Your task to perform on an android device: Open calendar and show me the second week of next month Image 0: 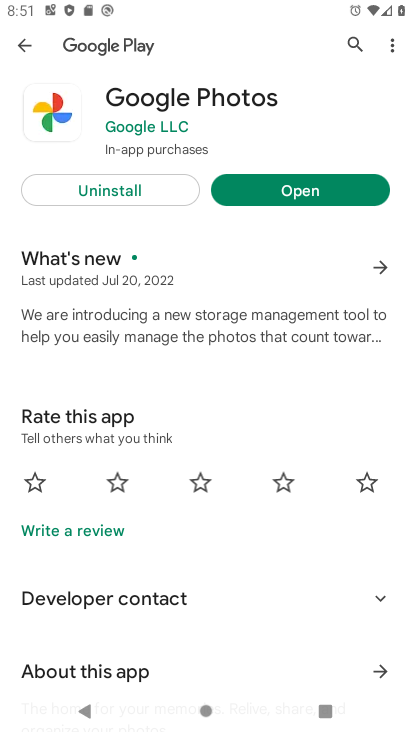
Step 0: press home button
Your task to perform on an android device: Open calendar and show me the second week of next month Image 1: 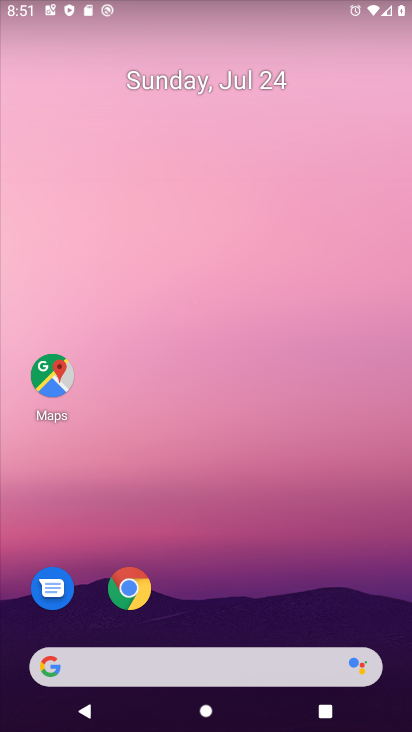
Step 1: drag from (319, 436) to (336, 2)
Your task to perform on an android device: Open calendar and show me the second week of next month Image 2: 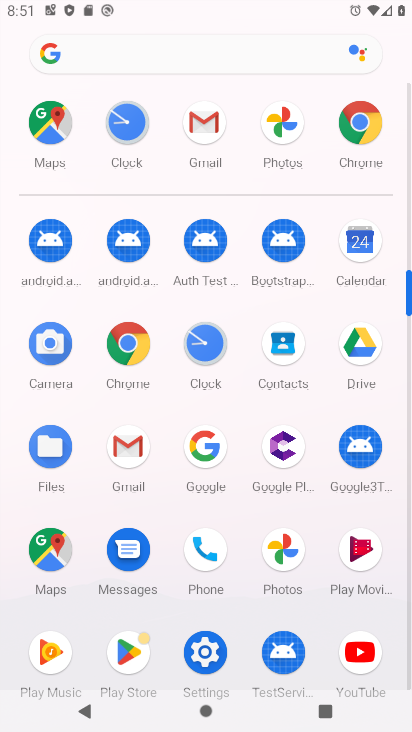
Step 2: click (374, 239)
Your task to perform on an android device: Open calendar and show me the second week of next month Image 3: 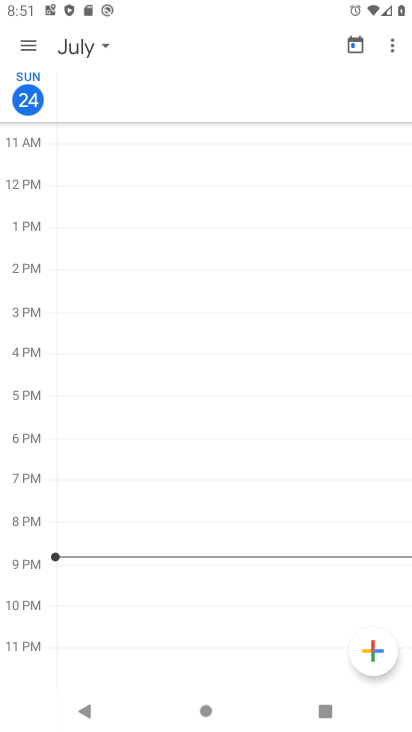
Step 3: click (78, 55)
Your task to perform on an android device: Open calendar and show me the second week of next month Image 4: 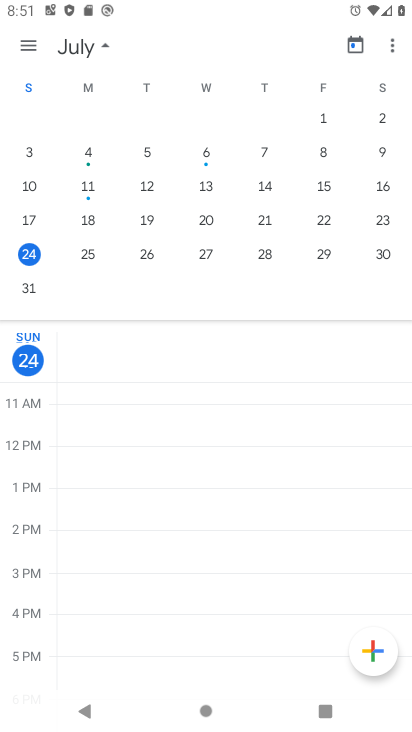
Step 4: drag from (299, 177) to (0, 206)
Your task to perform on an android device: Open calendar and show me the second week of next month Image 5: 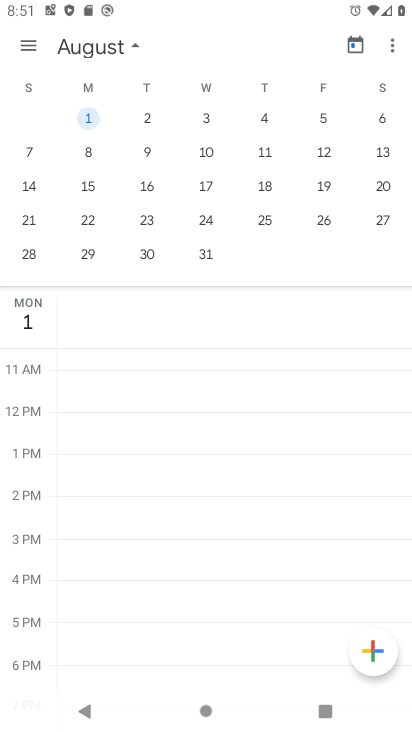
Step 5: click (20, 195)
Your task to perform on an android device: Open calendar and show me the second week of next month Image 6: 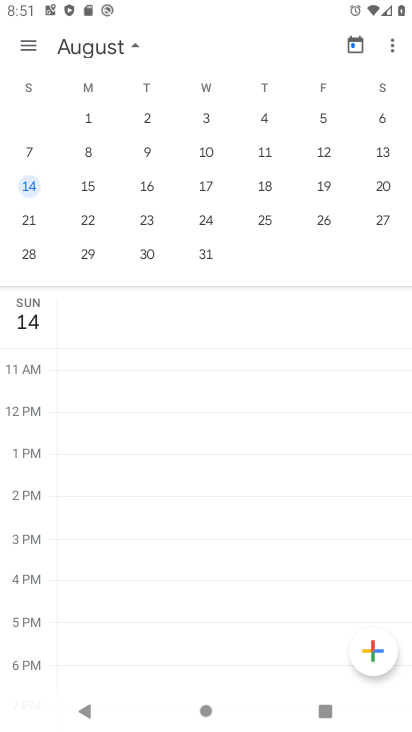
Step 6: task complete